Your task to perform on an android device: Open maps Image 0: 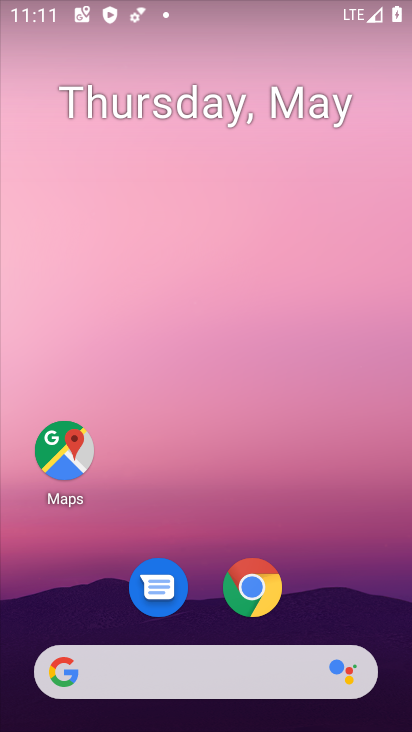
Step 0: click (80, 449)
Your task to perform on an android device: Open maps Image 1: 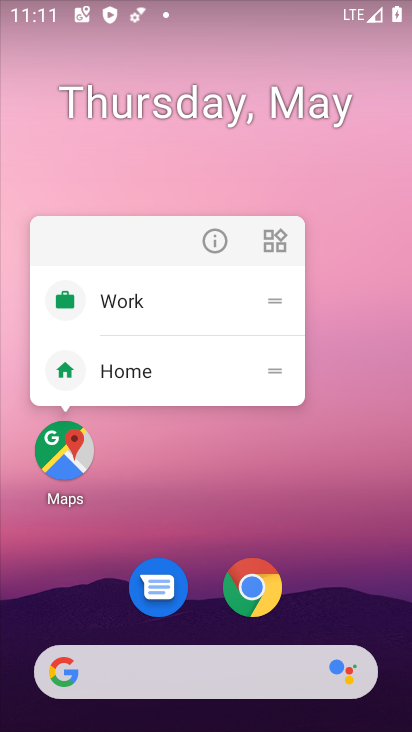
Step 1: click (73, 461)
Your task to perform on an android device: Open maps Image 2: 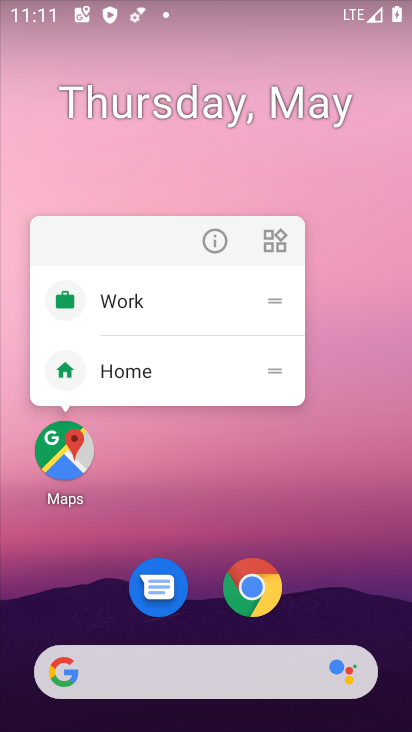
Step 2: click (68, 456)
Your task to perform on an android device: Open maps Image 3: 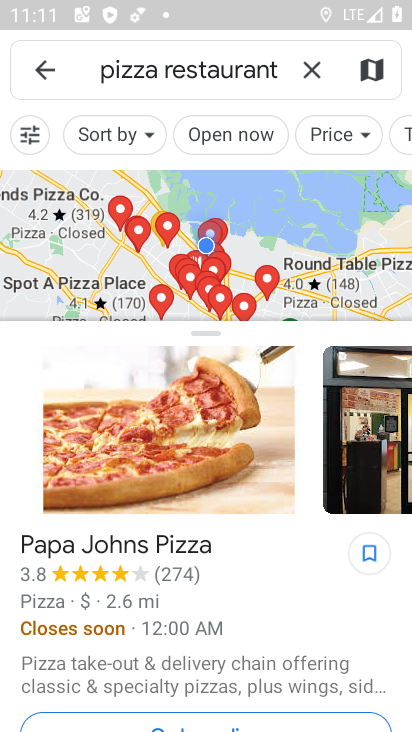
Step 3: task complete